Your task to perform on an android device: Open the calendar and show me this week's events? Image 0: 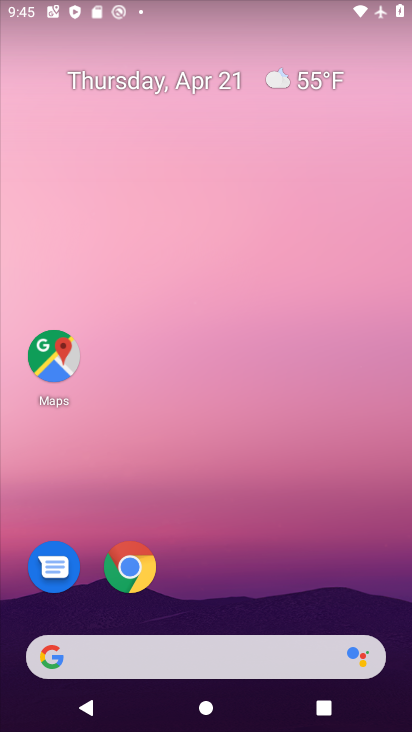
Step 0: drag from (351, 606) to (260, 55)
Your task to perform on an android device: Open the calendar and show me this week's events? Image 1: 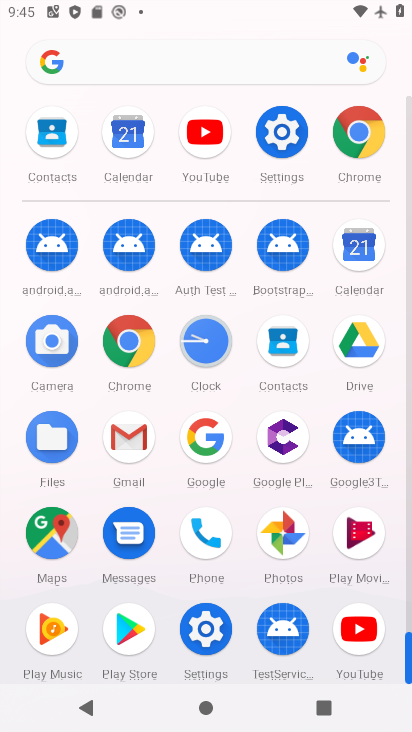
Step 1: click (361, 247)
Your task to perform on an android device: Open the calendar and show me this week's events? Image 2: 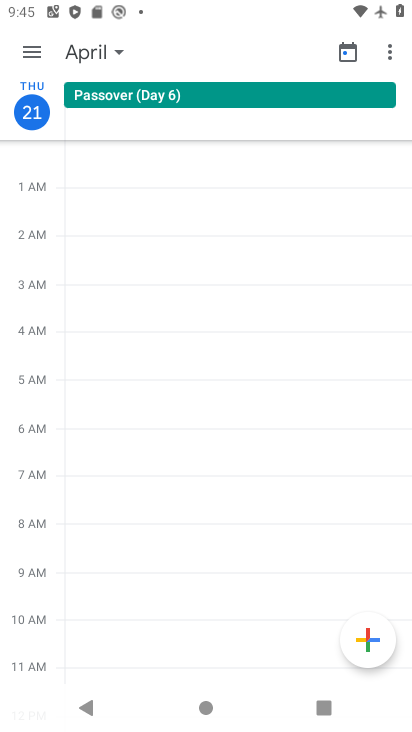
Step 2: click (28, 53)
Your task to perform on an android device: Open the calendar and show me this week's events? Image 3: 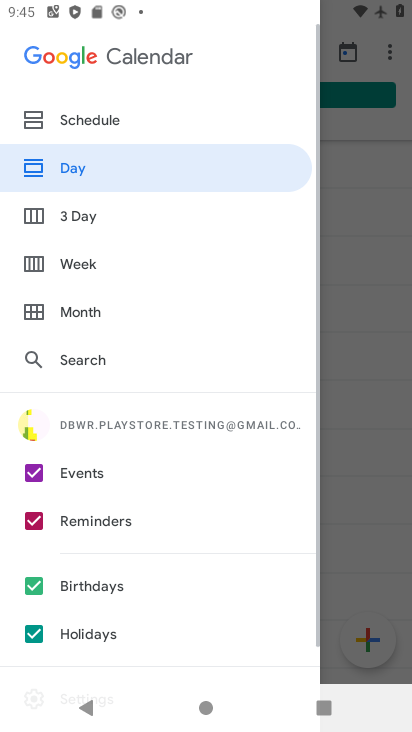
Step 3: click (74, 257)
Your task to perform on an android device: Open the calendar and show me this week's events? Image 4: 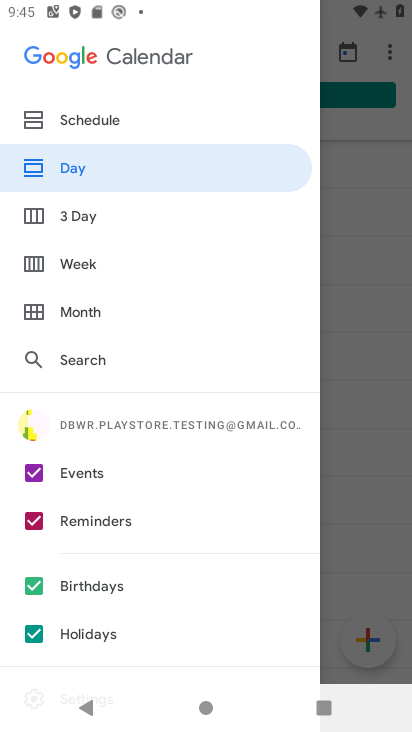
Step 4: click (81, 265)
Your task to perform on an android device: Open the calendar and show me this week's events? Image 5: 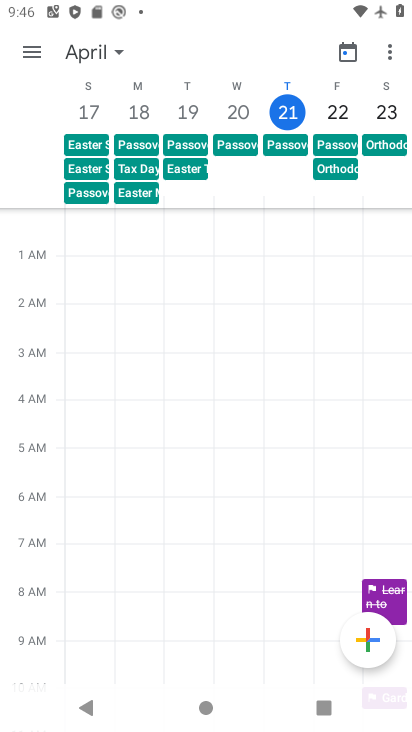
Step 5: task complete